Your task to perform on an android device: Open calendar and show me the second week of next month Image 0: 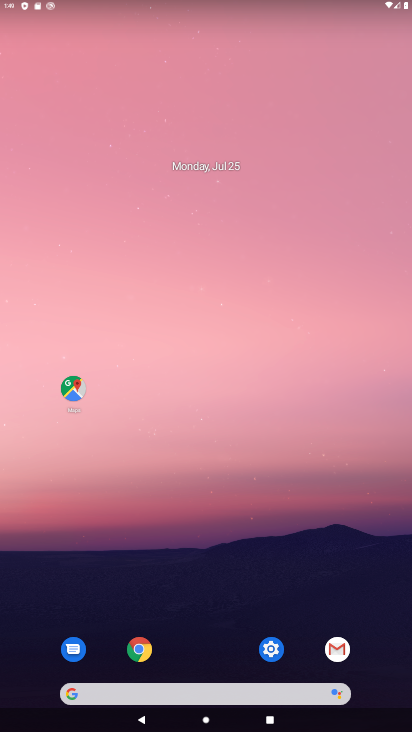
Step 0: drag from (319, 711) to (303, 258)
Your task to perform on an android device: Open calendar and show me the second week of next month Image 1: 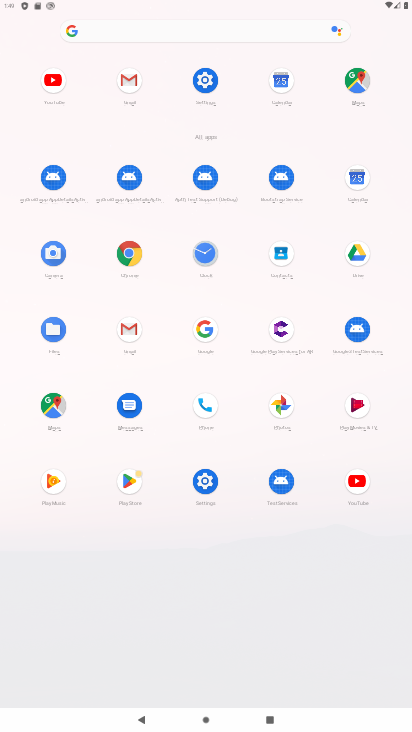
Step 1: click (345, 185)
Your task to perform on an android device: Open calendar and show me the second week of next month Image 2: 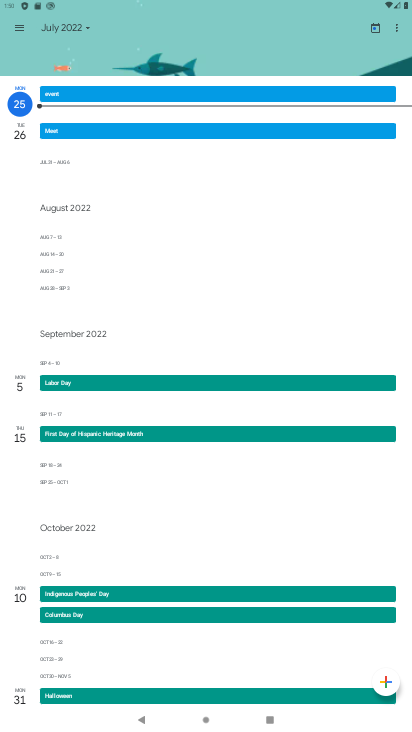
Step 2: click (26, 26)
Your task to perform on an android device: Open calendar and show me the second week of next month Image 3: 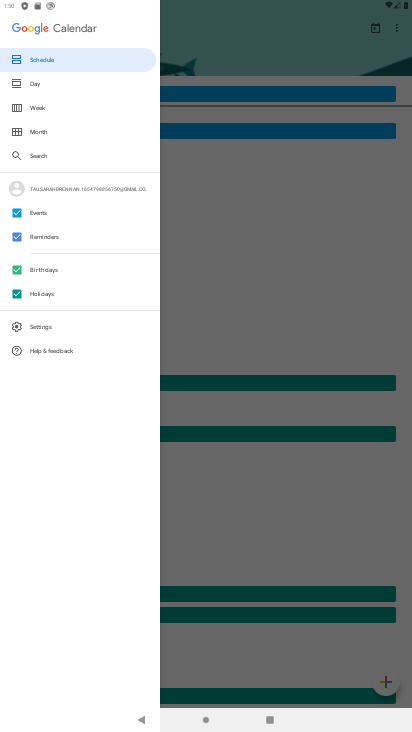
Step 3: click (32, 133)
Your task to perform on an android device: Open calendar and show me the second week of next month Image 4: 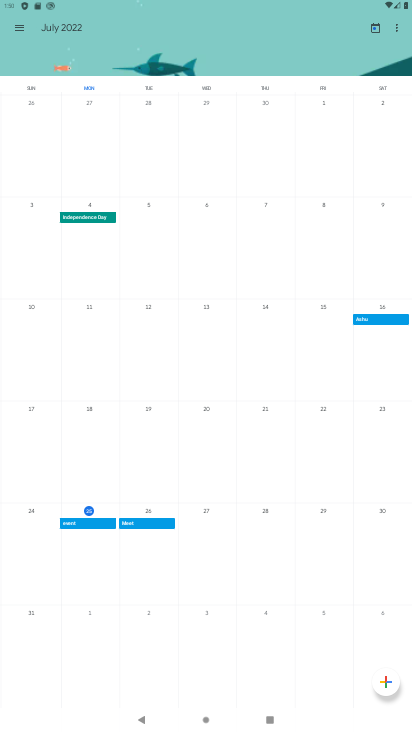
Step 4: drag from (377, 430) to (1, 446)
Your task to perform on an android device: Open calendar and show me the second week of next month Image 5: 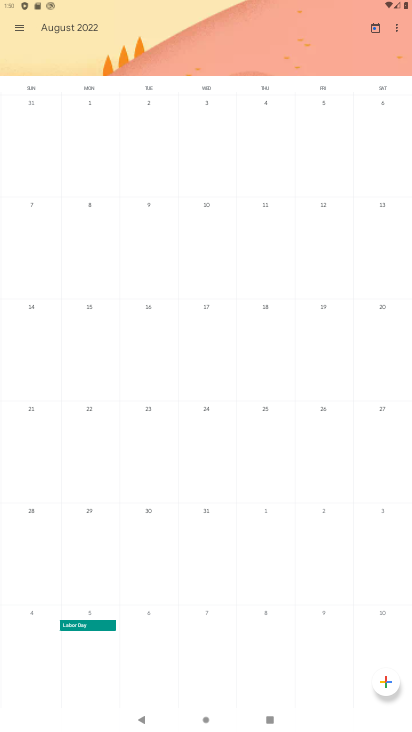
Step 5: click (83, 212)
Your task to perform on an android device: Open calendar and show me the second week of next month Image 6: 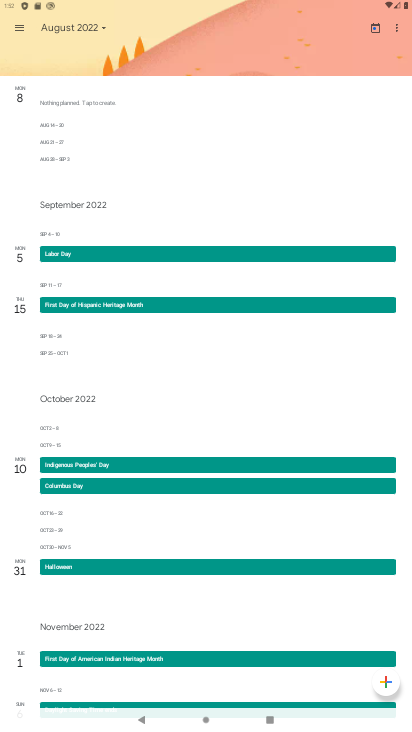
Step 6: task complete